Your task to perform on an android device: Open Google Chrome and click the shortcut for Amazon.com Image 0: 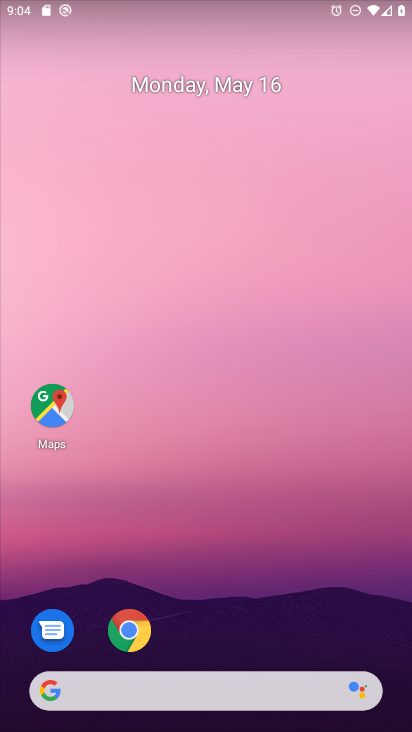
Step 0: click (132, 633)
Your task to perform on an android device: Open Google Chrome and click the shortcut for Amazon.com Image 1: 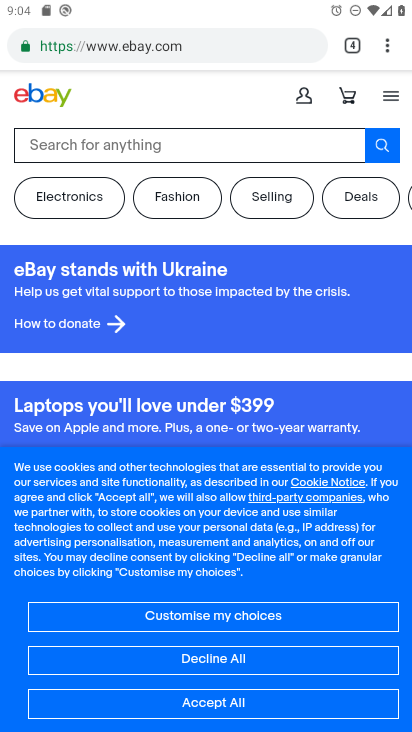
Step 1: click (352, 47)
Your task to perform on an android device: Open Google Chrome and click the shortcut for Amazon.com Image 2: 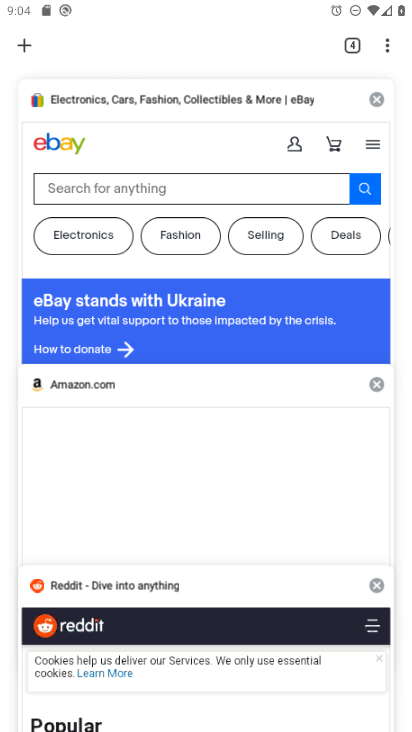
Step 2: drag from (187, 260) to (247, 561)
Your task to perform on an android device: Open Google Chrome and click the shortcut for Amazon.com Image 3: 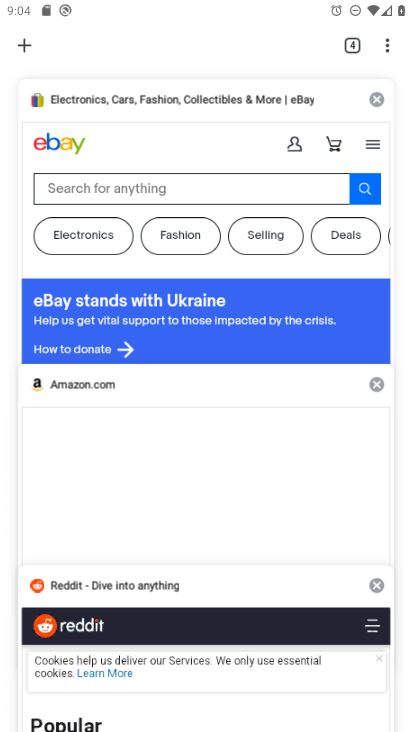
Step 3: click (256, 553)
Your task to perform on an android device: Open Google Chrome and click the shortcut for Amazon.com Image 4: 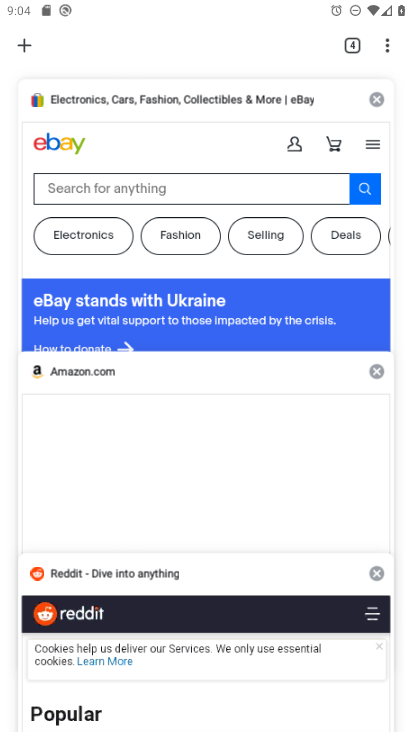
Step 4: click (255, 481)
Your task to perform on an android device: Open Google Chrome and click the shortcut for Amazon.com Image 5: 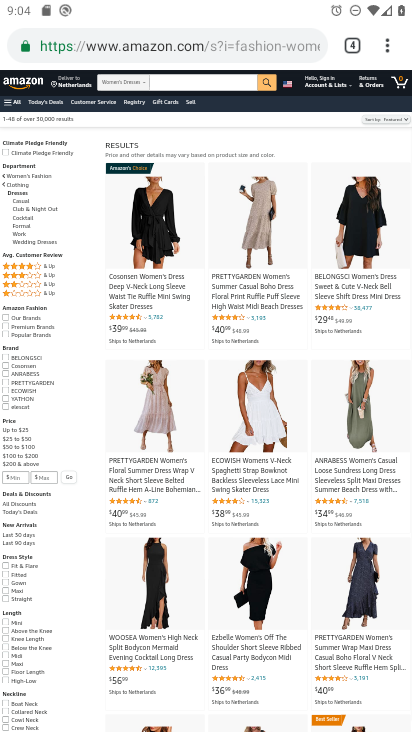
Step 5: task complete